Your task to perform on an android device: add a label to a message in the gmail app Image 0: 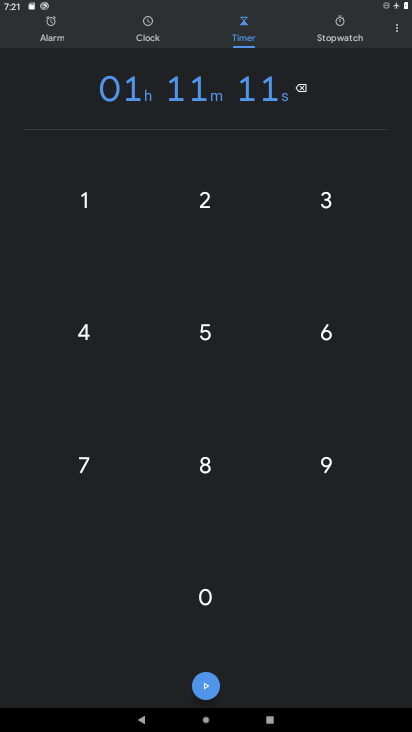
Step 0: press home button
Your task to perform on an android device: add a label to a message in the gmail app Image 1: 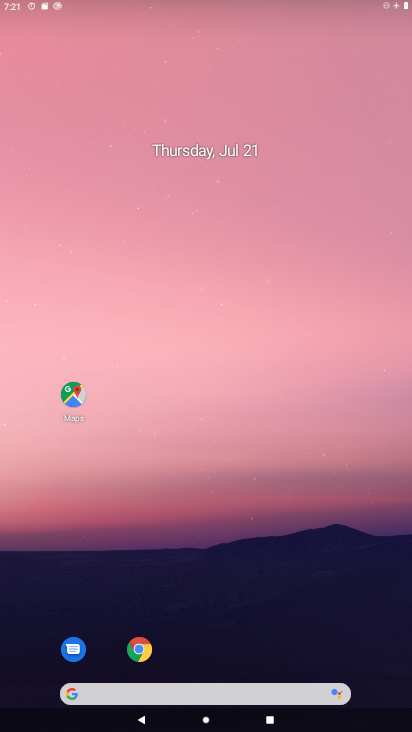
Step 1: drag from (389, 660) to (209, 3)
Your task to perform on an android device: add a label to a message in the gmail app Image 2: 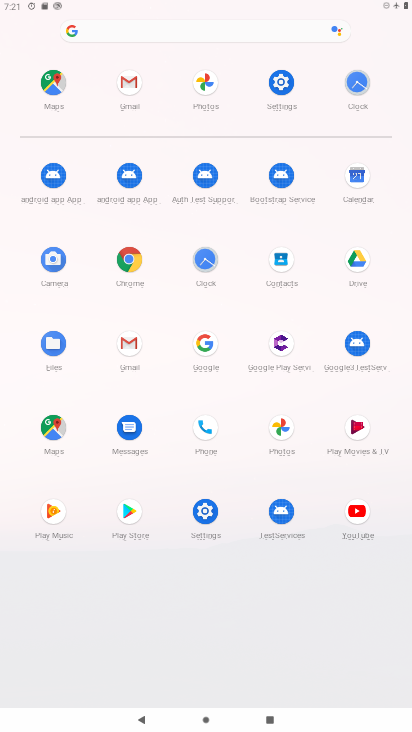
Step 2: click (131, 341)
Your task to perform on an android device: add a label to a message in the gmail app Image 3: 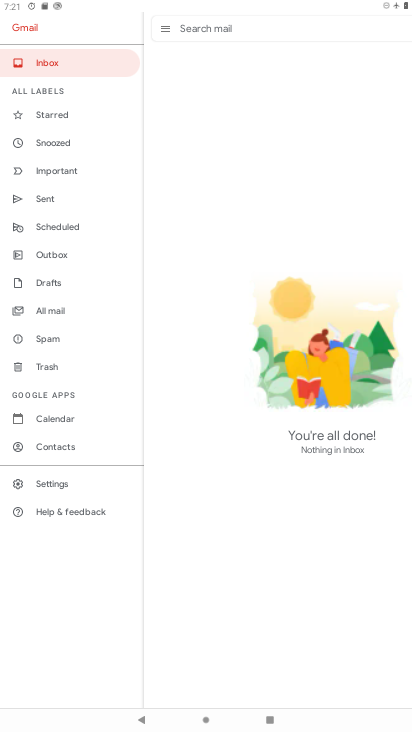
Step 3: task complete